Your task to perform on an android device: Open wifi settings Image 0: 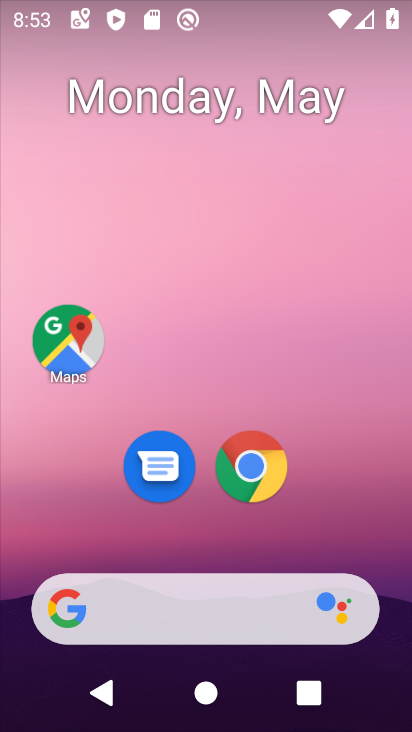
Step 0: drag from (264, 642) to (309, 83)
Your task to perform on an android device: Open wifi settings Image 1: 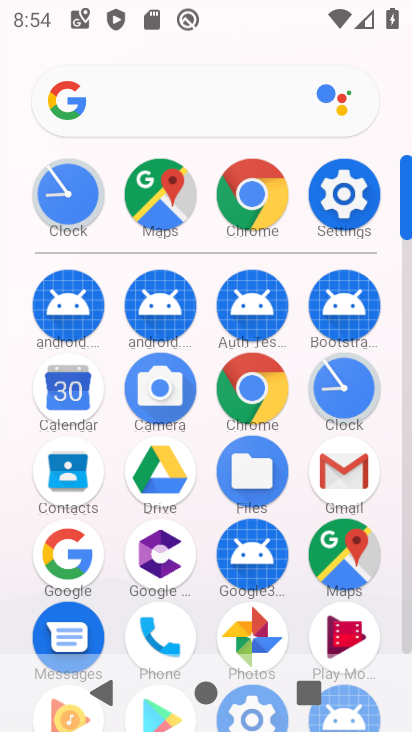
Step 1: click (347, 212)
Your task to perform on an android device: Open wifi settings Image 2: 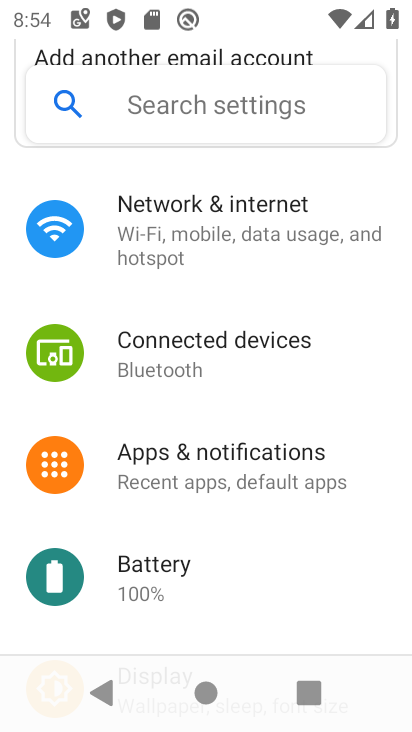
Step 2: click (164, 233)
Your task to perform on an android device: Open wifi settings Image 3: 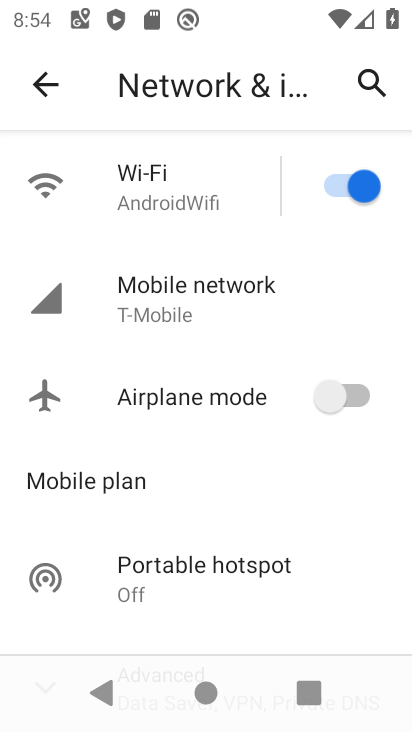
Step 3: task complete